Your task to perform on an android device: Search for Mexican restaurants on Maps Image 0: 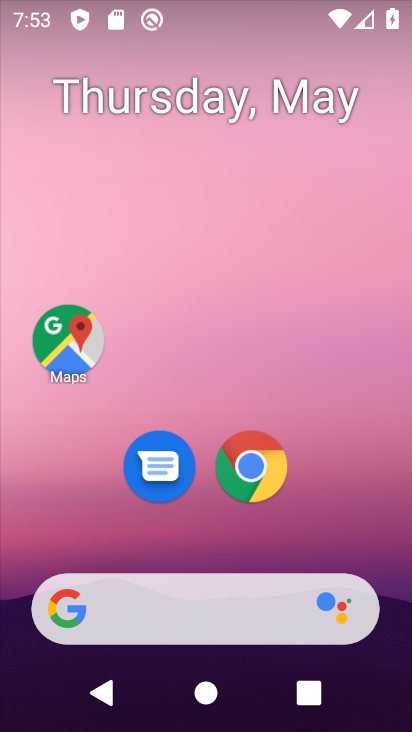
Step 0: click (69, 343)
Your task to perform on an android device: Search for Mexican restaurants on Maps Image 1: 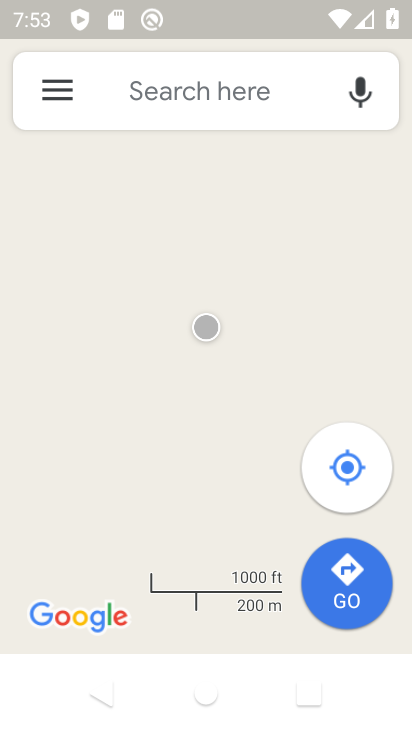
Step 1: click (137, 93)
Your task to perform on an android device: Search for Mexican restaurants on Maps Image 2: 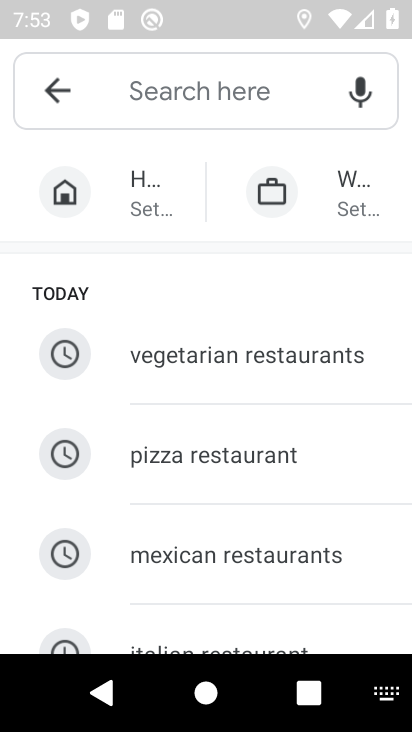
Step 2: type "mexican restaurants"
Your task to perform on an android device: Search for Mexican restaurants on Maps Image 3: 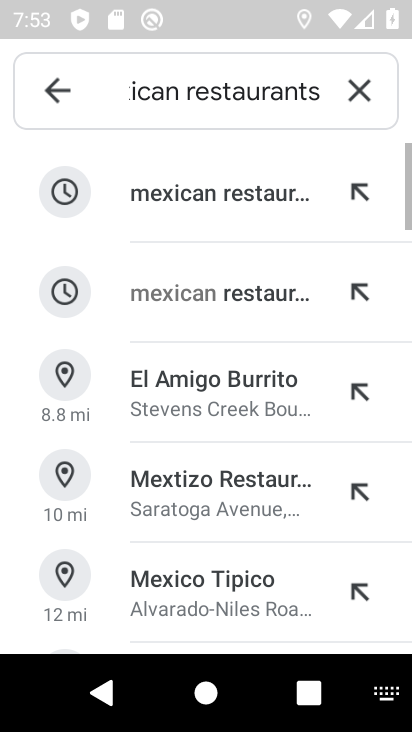
Step 3: click (183, 210)
Your task to perform on an android device: Search for Mexican restaurants on Maps Image 4: 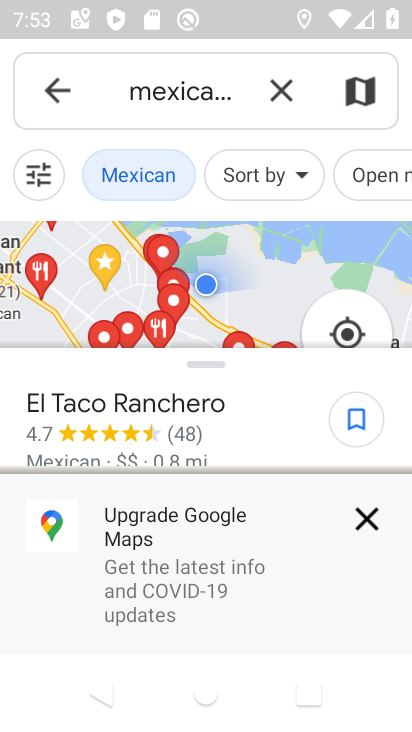
Step 4: click (359, 520)
Your task to perform on an android device: Search for Mexican restaurants on Maps Image 5: 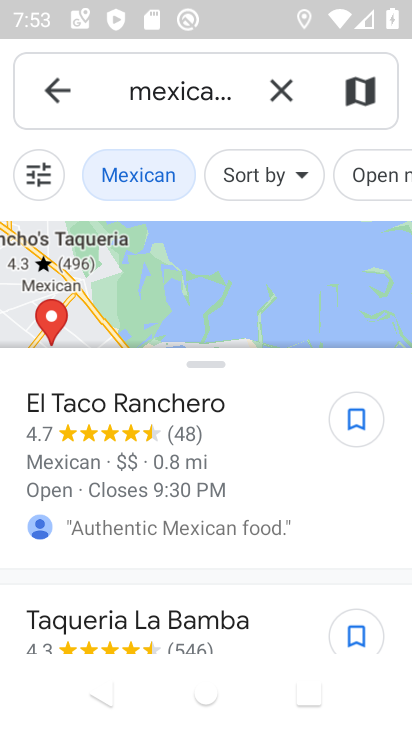
Step 5: task complete